Your task to perform on an android device: turn off smart reply in the gmail app Image 0: 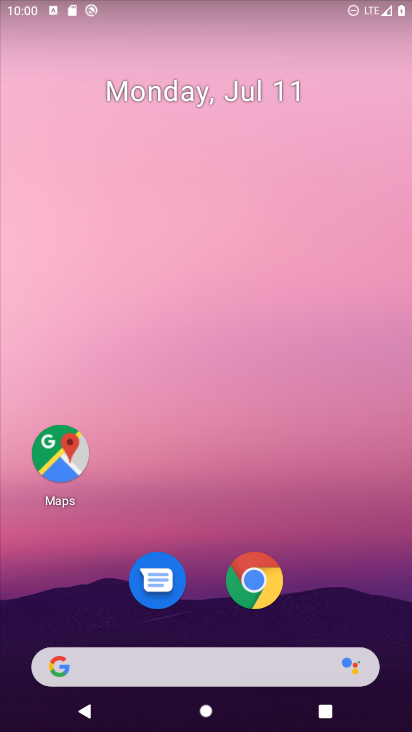
Step 0: drag from (222, 437) to (205, 55)
Your task to perform on an android device: turn off smart reply in the gmail app Image 1: 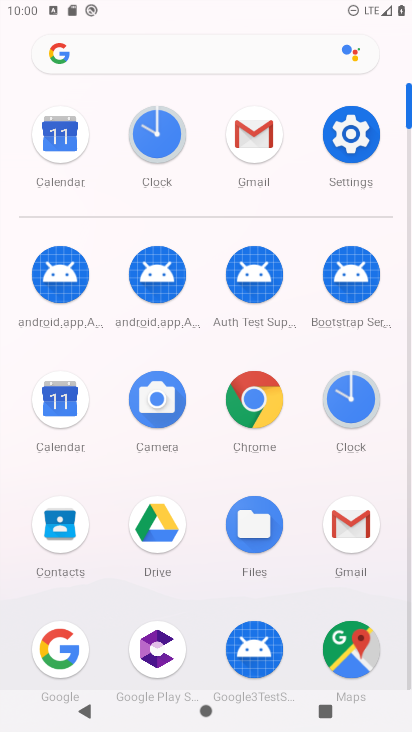
Step 1: click (240, 140)
Your task to perform on an android device: turn off smart reply in the gmail app Image 2: 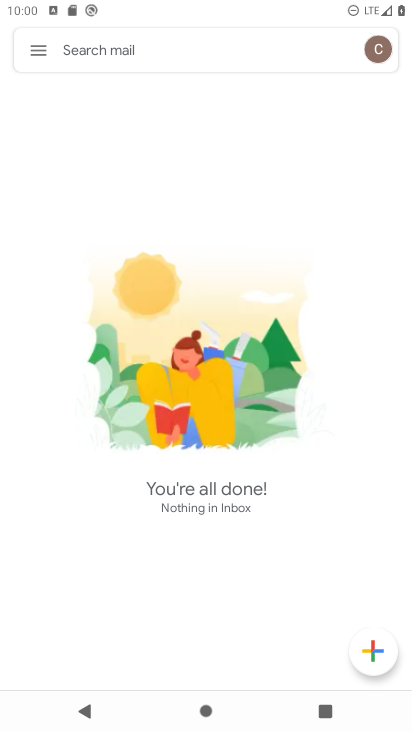
Step 2: click (33, 46)
Your task to perform on an android device: turn off smart reply in the gmail app Image 3: 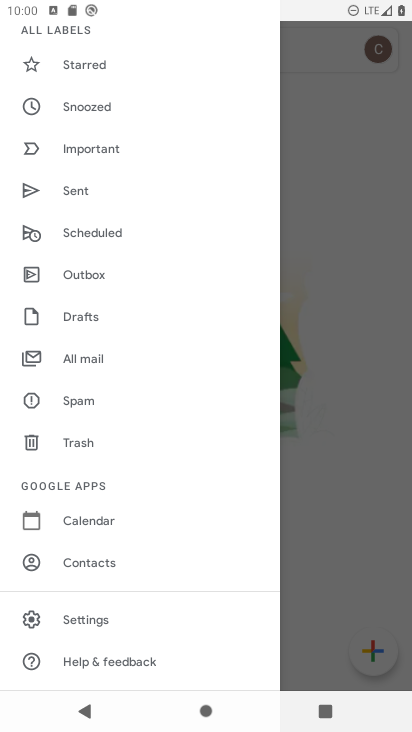
Step 3: click (99, 615)
Your task to perform on an android device: turn off smart reply in the gmail app Image 4: 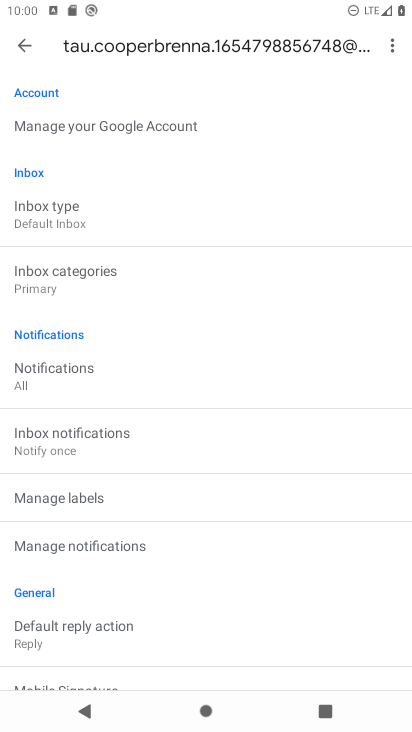
Step 4: drag from (220, 574) to (222, 122)
Your task to perform on an android device: turn off smart reply in the gmail app Image 5: 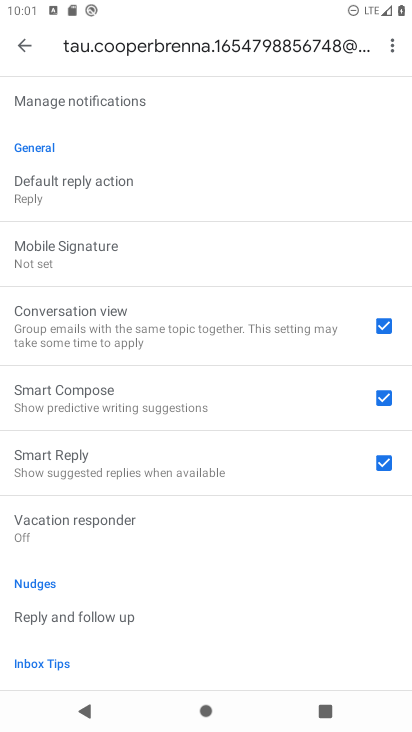
Step 5: click (382, 461)
Your task to perform on an android device: turn off smart reply in the gmail app Image 6: 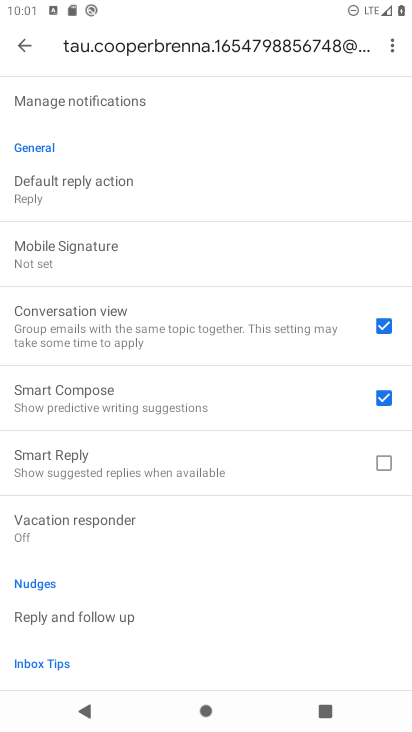
Step 6: task complete